Your task to perform on an android device: Open settings on Google Maps Image 0: 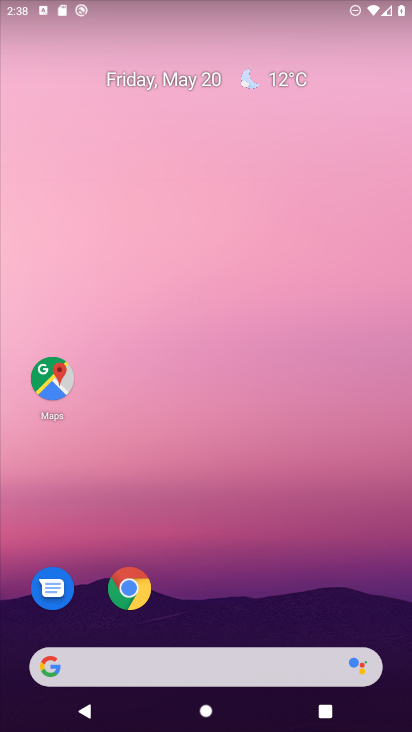
Step 0: click (50, 380)
Your task to perform on an android device: Open settings on Google Maps Image 1: 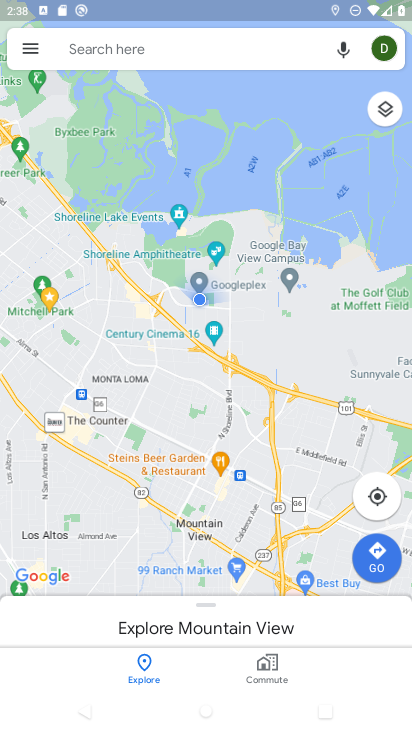
Step 1: click (28, 45)
Your task to perform on an android device: Open settings on Google Maps Image 2: 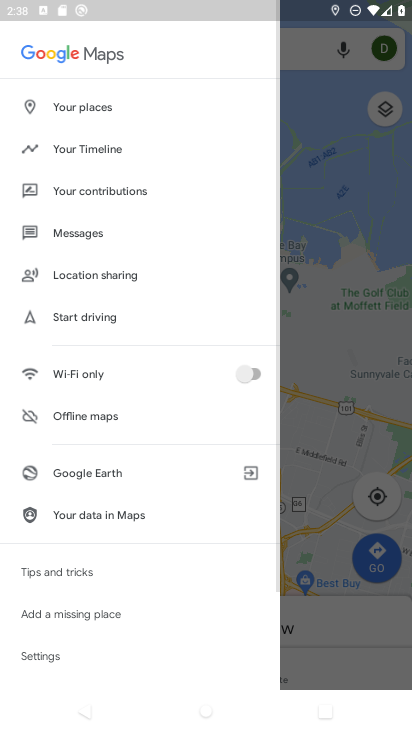
Step 2: drag from (183, 580) to (193, 157)
Your task to perform on an android device: Open settings on Google Maps Image 3: 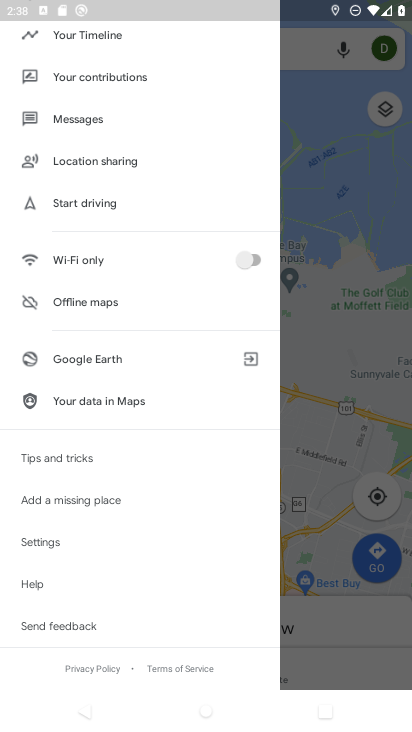
Step 3: click (46, 535)
Your task to perform on an android device: Open settings on Google Maps Image 4: 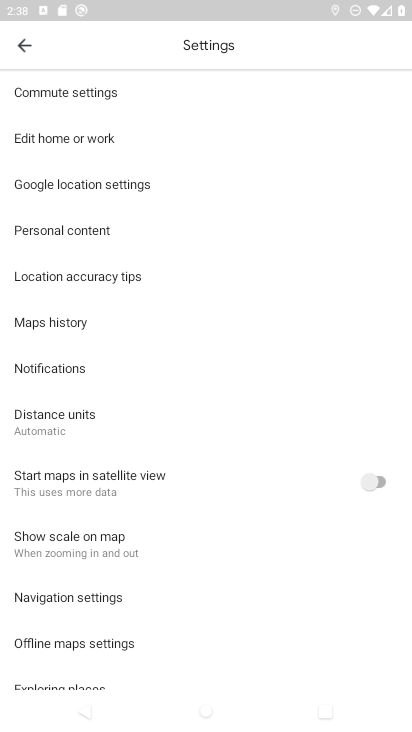
Step 4: task complete